Your task to perform on an android device: Search for the best rated headphones on Amazon Image 0: 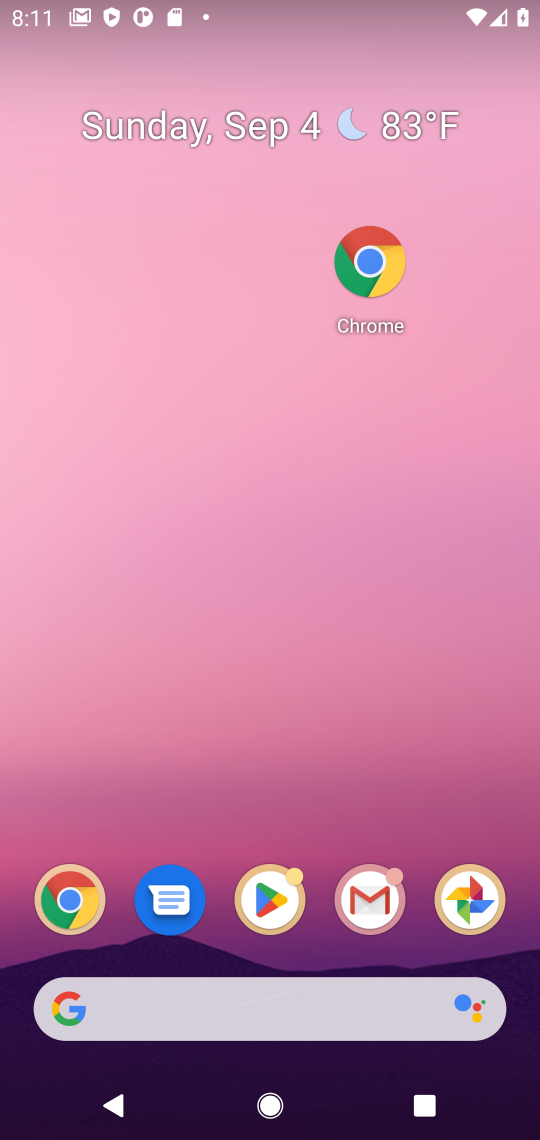
Step 0: click (379, 279)
Your task to perform on an android device: Search for the best rated headphones on Amazon Image 1: 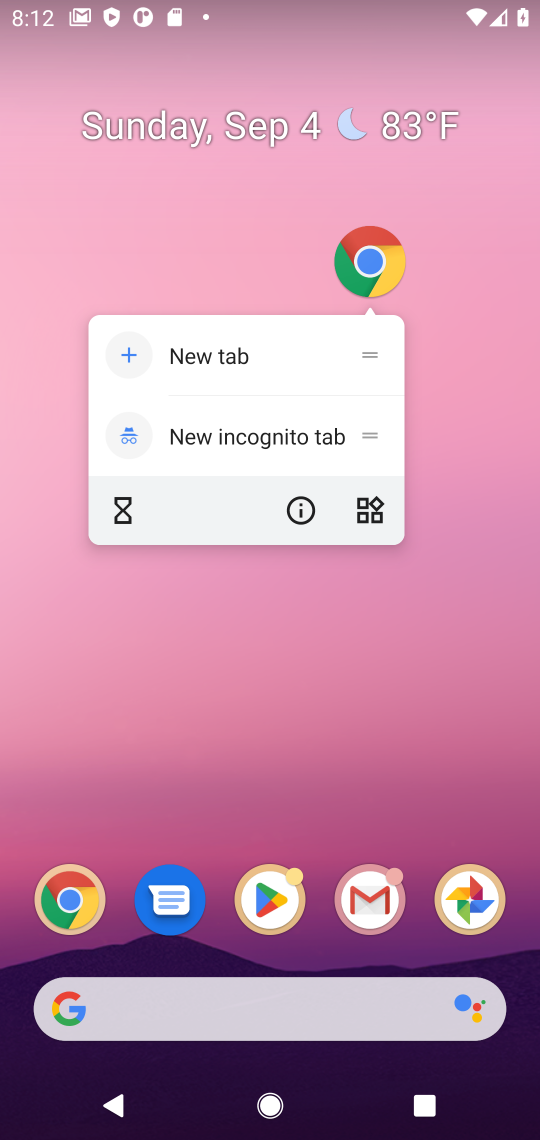
Step 1: click (354, 277)
Your task to perform on an android device: Search for the best rated headphones on Amazon Image 2: 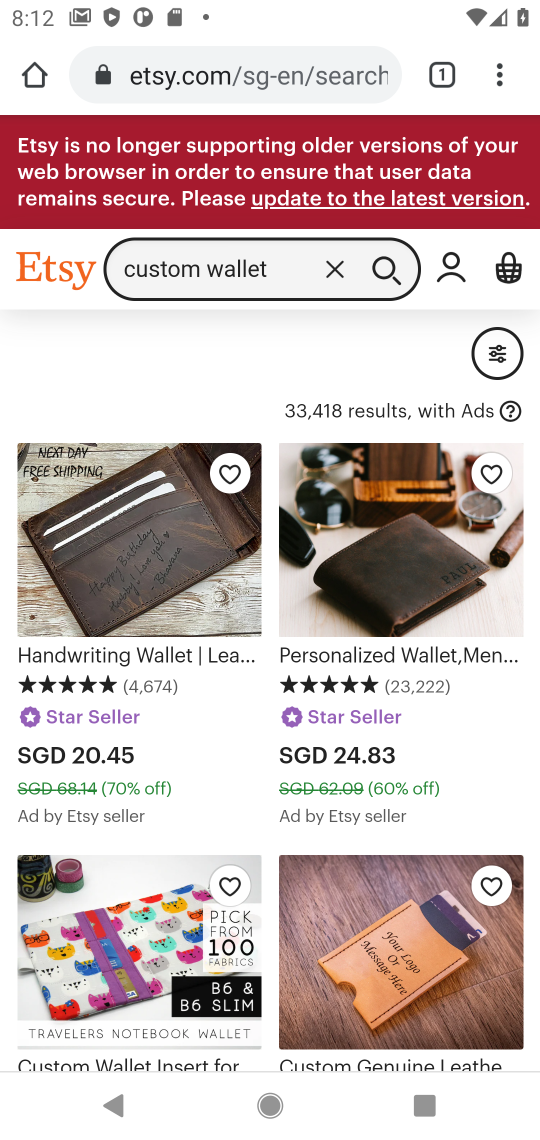
Step 2: click (444, 71)
Your task to perform on an android device: Search for the best rated headphones on Amazon Image 3: 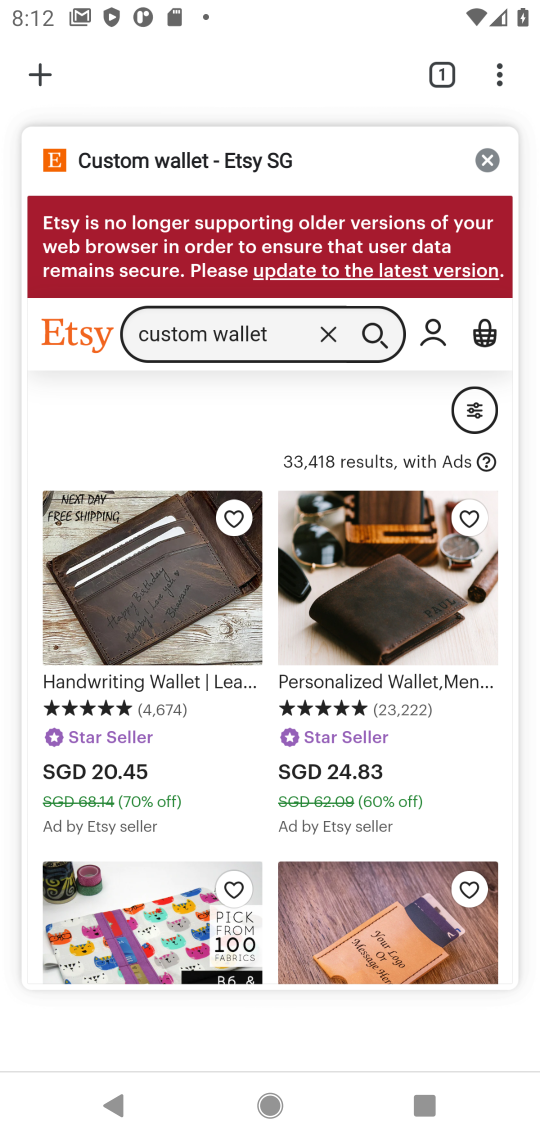
Step 3: click (43, 71)
Your task to perform on an android device: Search for the best rated headphones on Amazon Image 4: 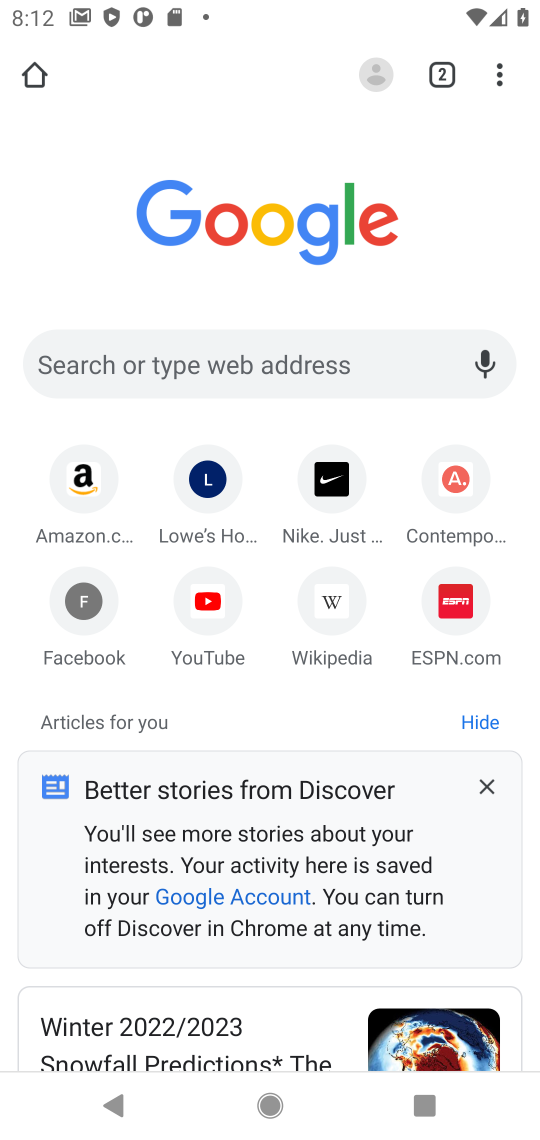
Step 4: click (97, 489)
Your task to perform on an android device: Search for the best rated headphones on Amazon Image 5: 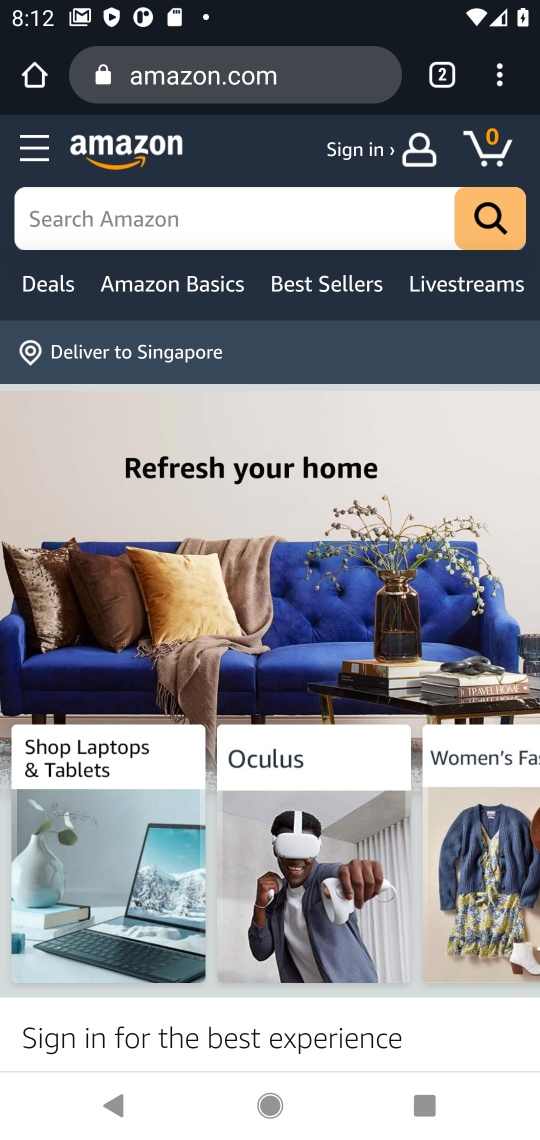
Step 5: click (151, 219)
Your task to perform on an android device: Search for the best rated headphones on Amazon Image 6: 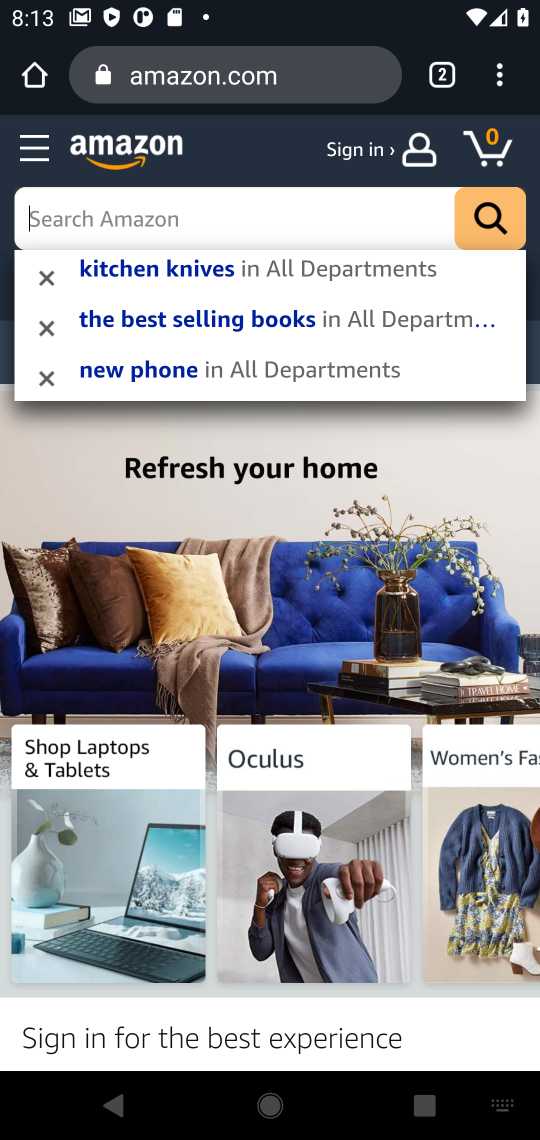
Step 6: type "the best rated headphones"
Your task to perform on an android device: Search for the best rated headphones on Amazon Image 7: 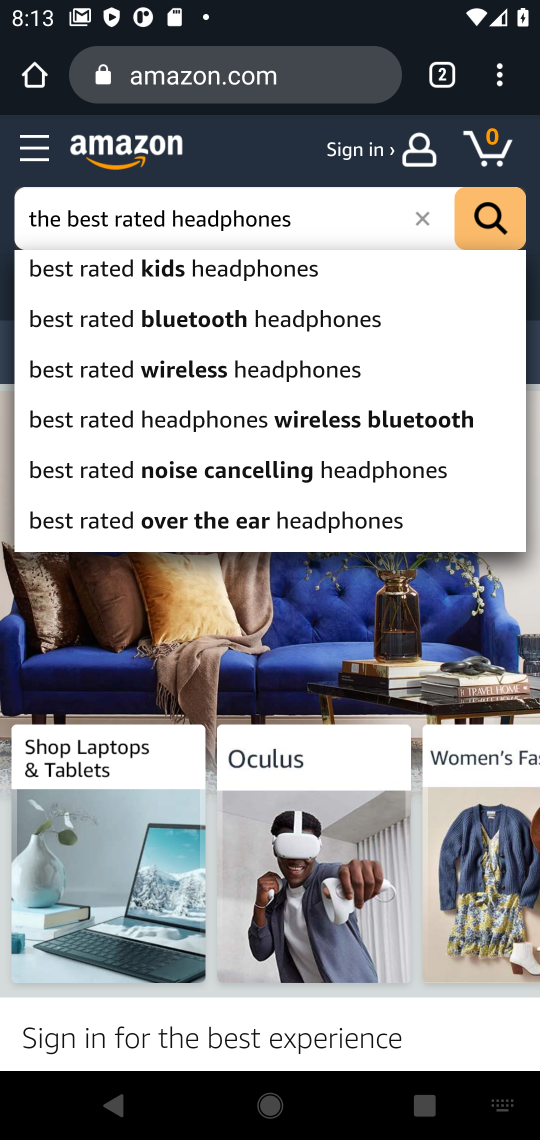
Step 7: click (494, 223)
Your task to perform on an android device: Search for the best rated headphones on Amazon Image 8: 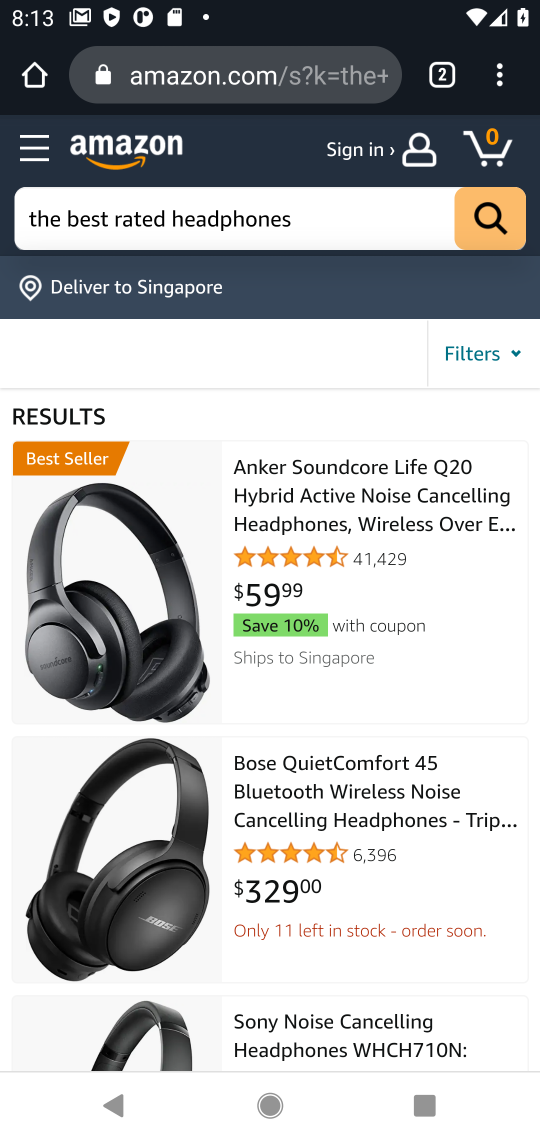
Step 8: task complete